Your task to perform on an android device: Open the Play Movies app and select the watchlist tab. Image 0: 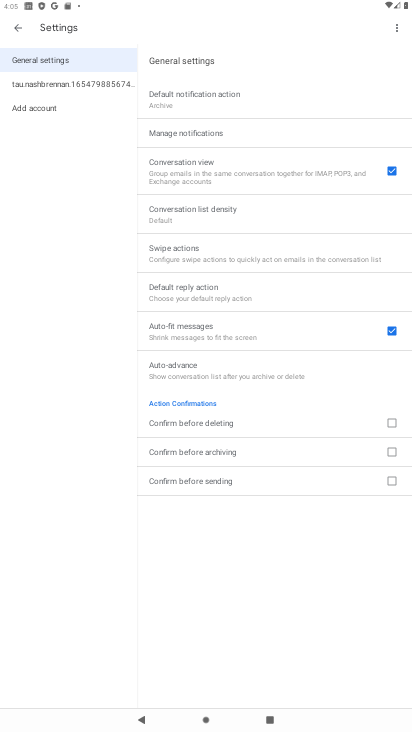
Step 0: press home button
Your task to perform on an android device: Open the Play Movies app and select the watchlist tab. Image 1: 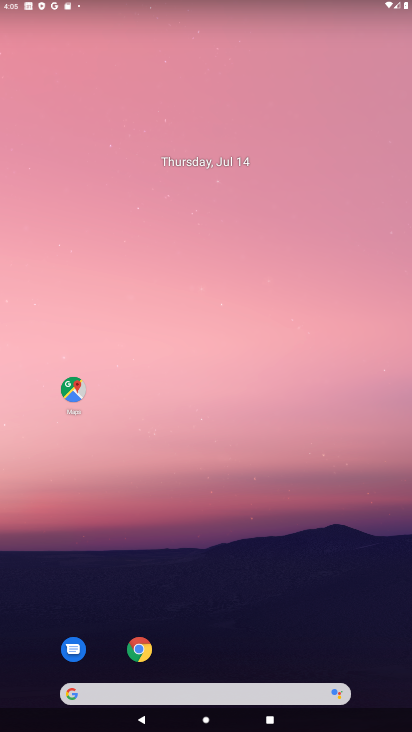
Step 1: drag from (232, 624) to (337, 82)
Your task to perform on an android device: Open the Play Movies app and select the watchlist tab. Image 2: 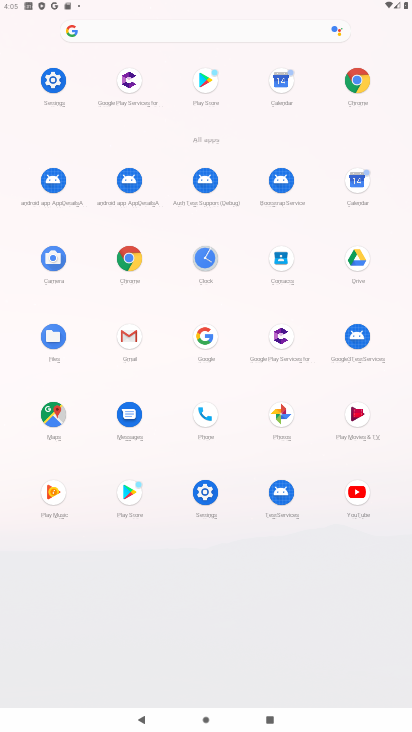
Step 2: click (364, 421)
Your task to perform on an android device: Open the Play Movies app and select the watchlist tab. Image 3: 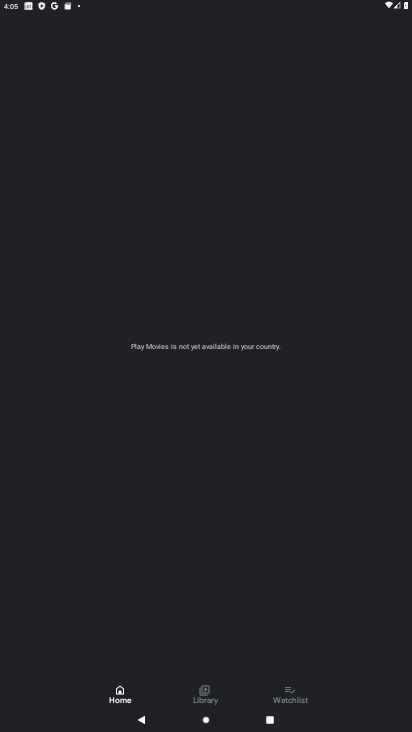
Step 3: click (289, 698)
Your task to perform on an android device: Open the Play Movies app and select the watchlist tab. Image 4: 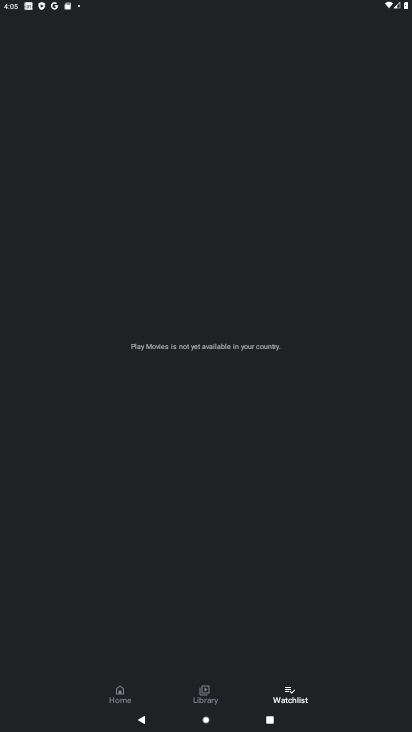
Step 4: task complete